Your task to perform on an android device: Turn on the flashlight Image 0: 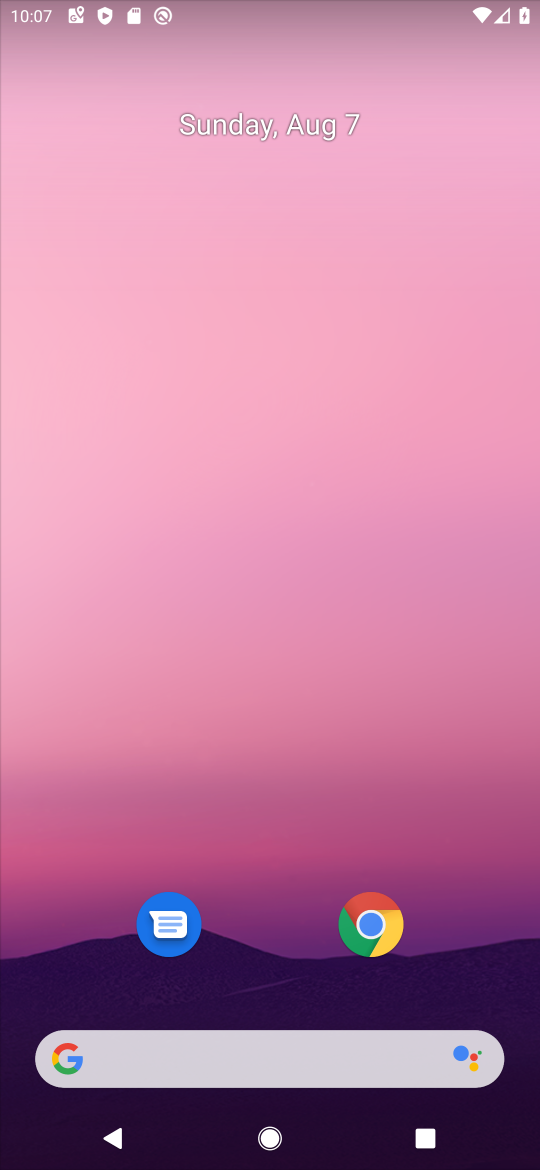
Step 0: drag from (297, 19) to (387, 847)
Your task to perform on an android device: Turn on the flashlight Image 1: 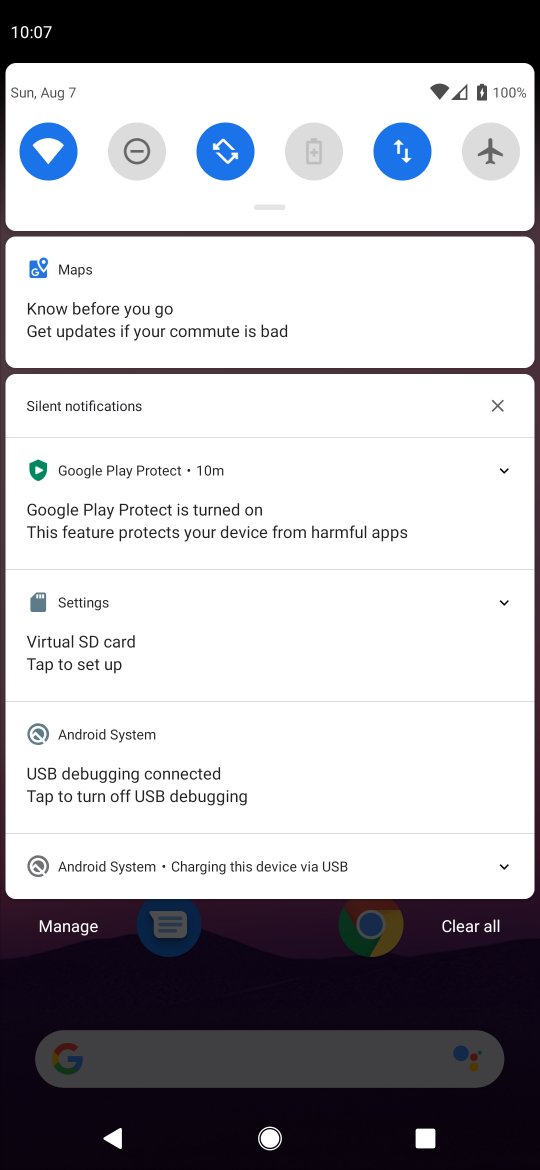
Step 1: task complete